Your task to perform on an android device: find which apps use the phone's location Image 0: 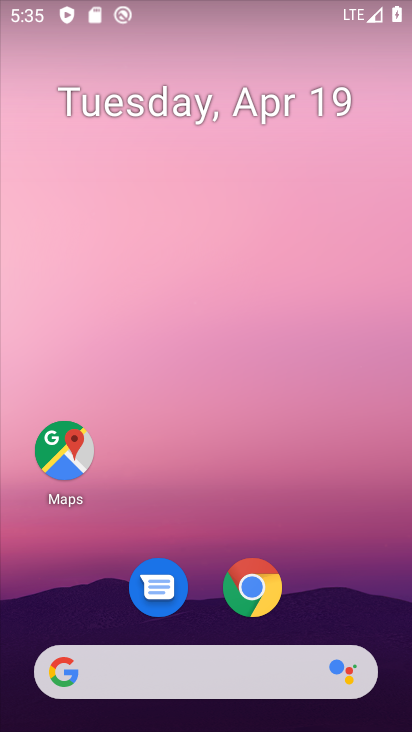
Step 0: drag from (239, 5) to (221, 593)
Your task to perform on an android device: find which apps use the phone's location Image 1: 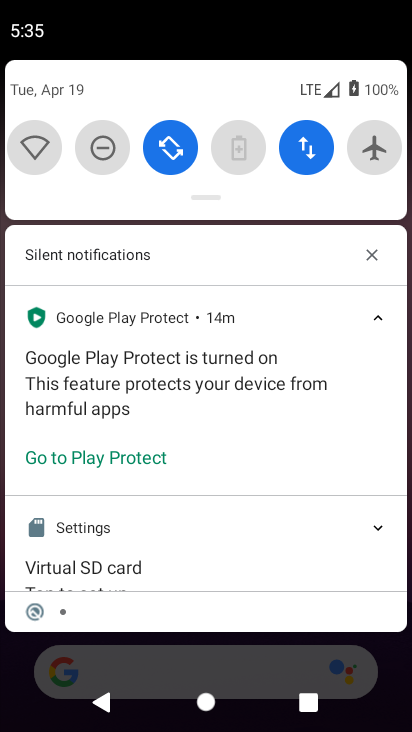
Step 1: drag from (161, 116) to (218, 634)
Your task to perform on an android device: find which apps use the phone's location Image 2: 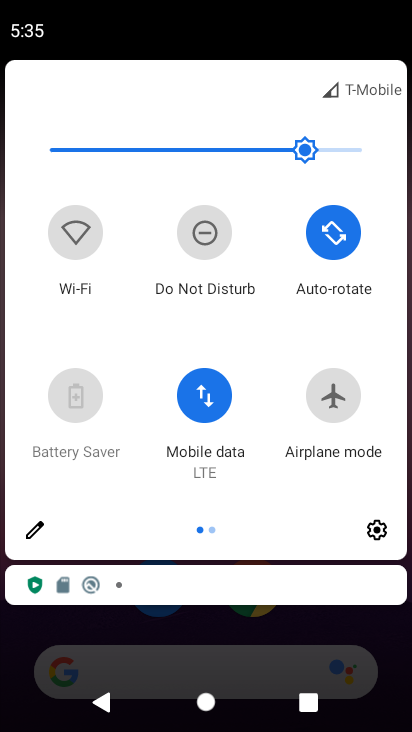
Step 2: click (380, 532)
Your task to perform on an android device: find which apps use the phone's location Image 3: 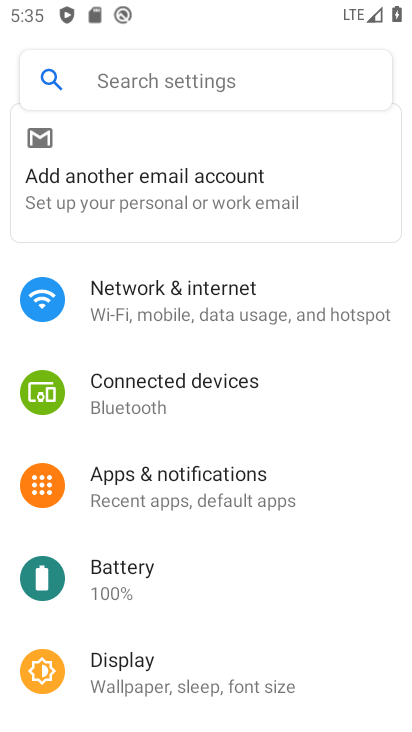
Step 3: drag from (102, 631) to (157, 294)
Your task to perform on an android device: find which apps use the phone's location Image 4: 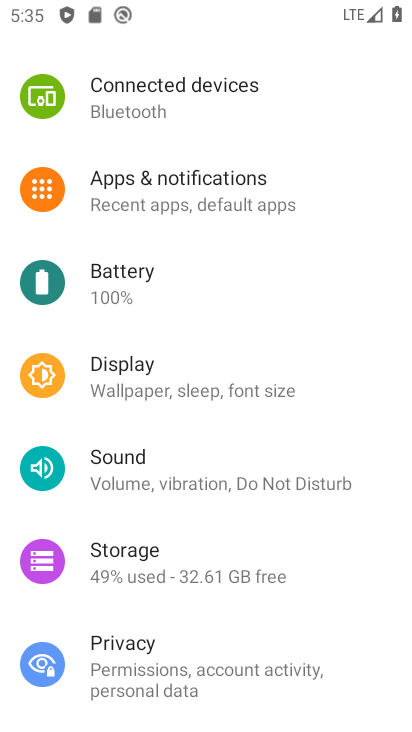
Step 4: drag from (133, 604) to (193, 130)
Your task to perform on an android device: find which apps use the phone's location Image 5: 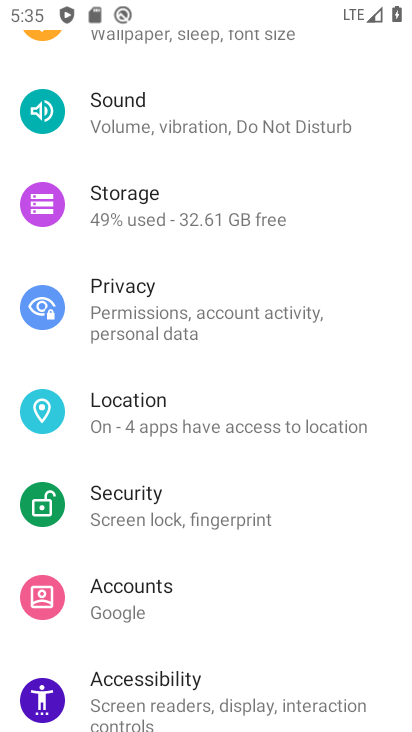
Step 5: click (240, 415)
Your task to perform on an android device: find which apps use the phone's location Image 6: 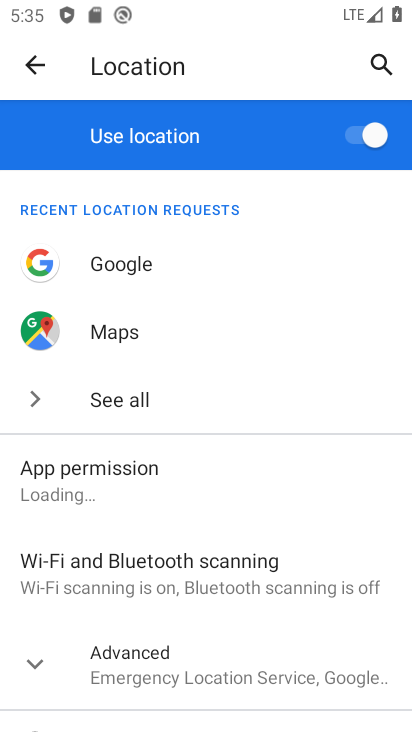
Step 6: click (201, 410)
Your task to perform on an android device: find which apps use the phone's location Image 7: 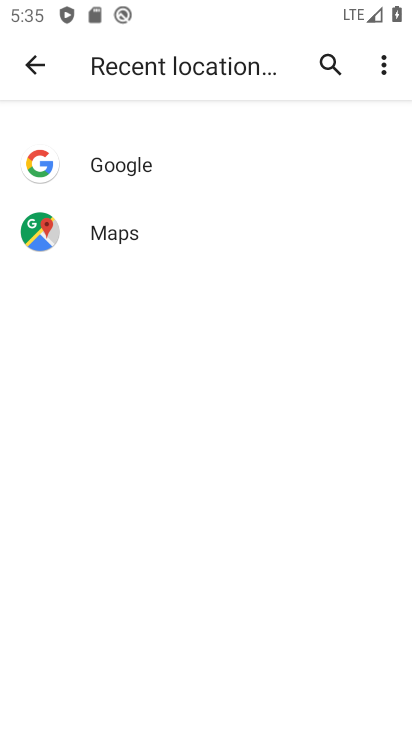
Step 7: task complete